Your task to perform on an android device: change timer sound Image 0: 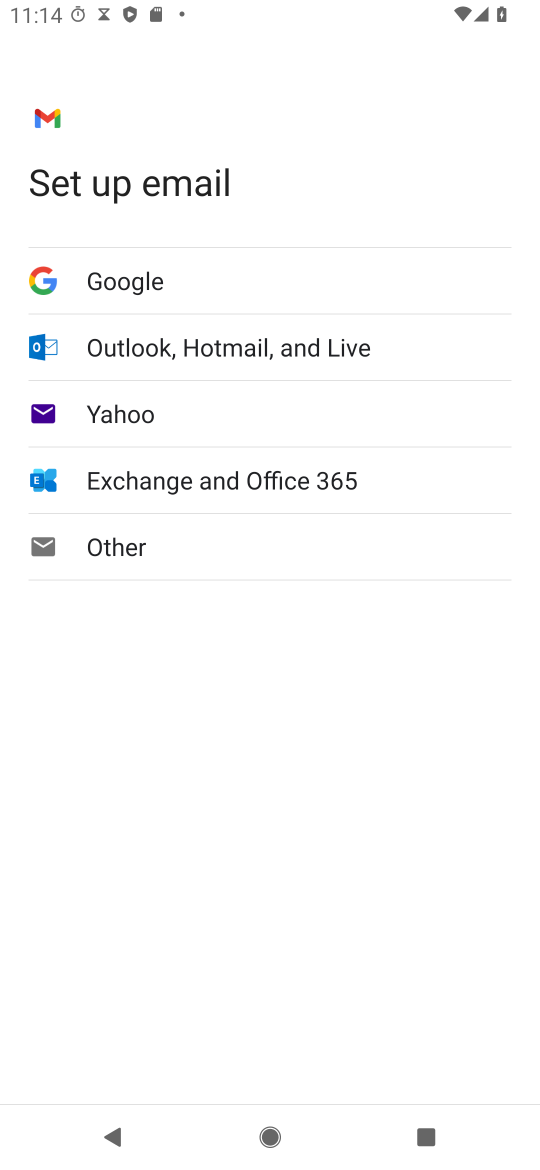
Step 0: press home button
Your task to perform on an android device: change timer sound Image 1: 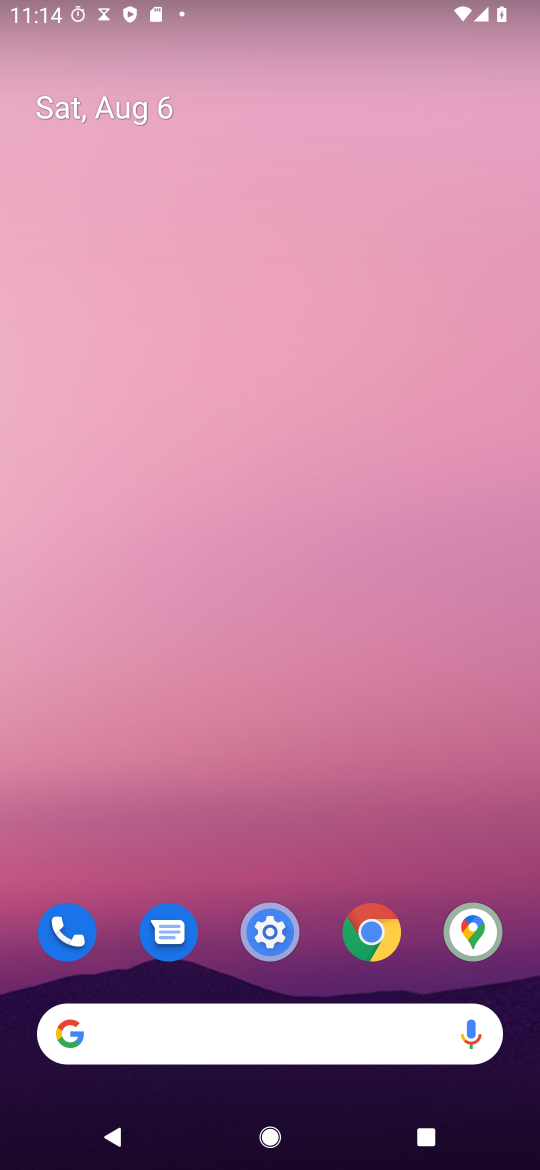
Step 1: drag from (221, 1032) to (241, 307)
Your task to perform on an android device: change timer sound Image 2: 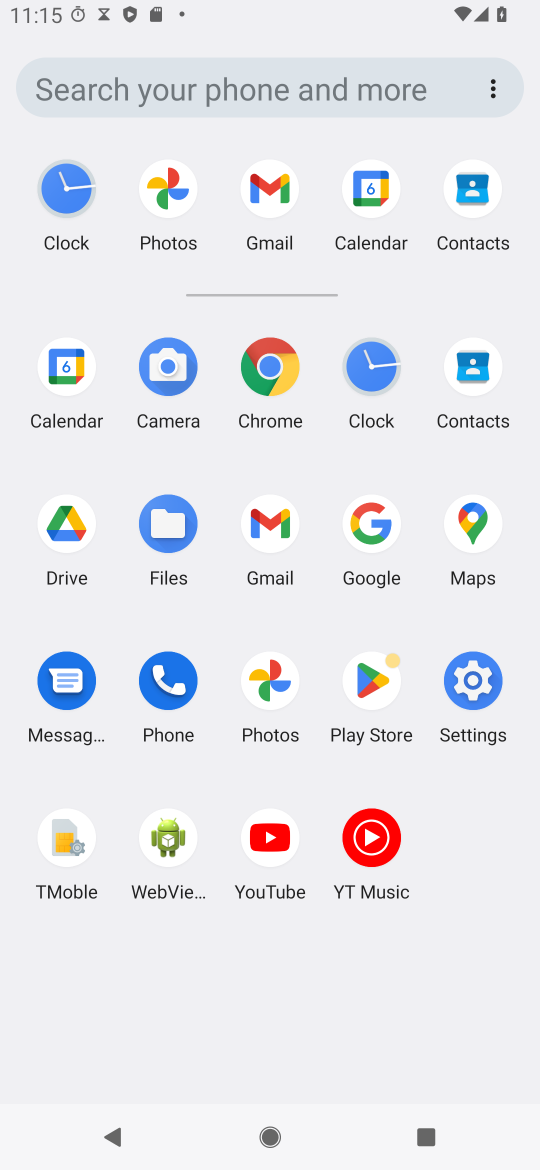
Step 2: click (370, 365)
Your task to perform on an android device: change timer sound Image 3: 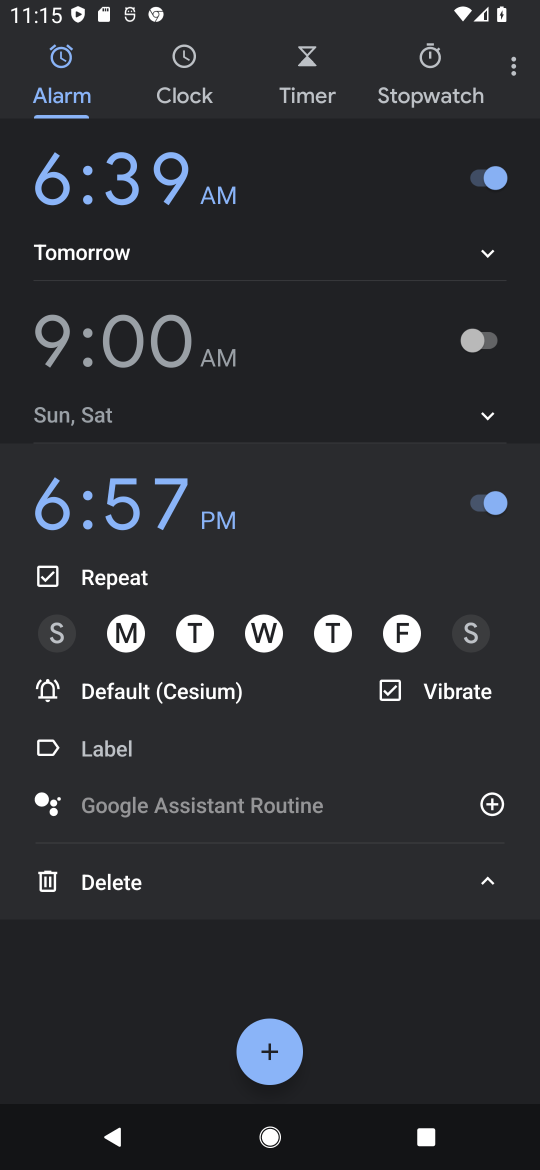
Step 3: click (510, 69)
Your task to perform on an android device: change timer sound Image 4: 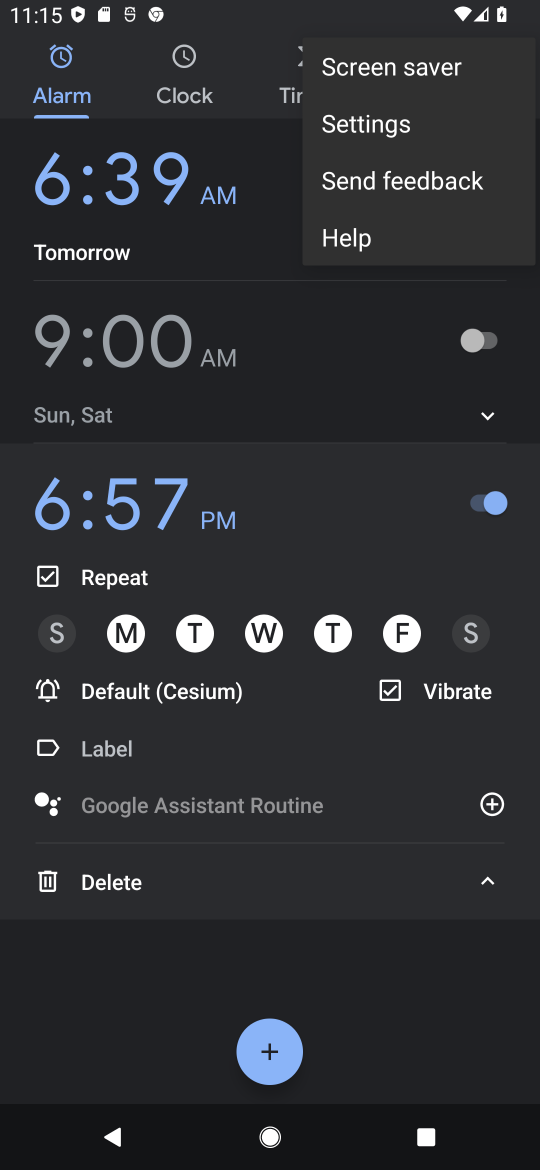
Step 4: click (384, 131)
Your task to perform on an android device: change timer sound Image 5: 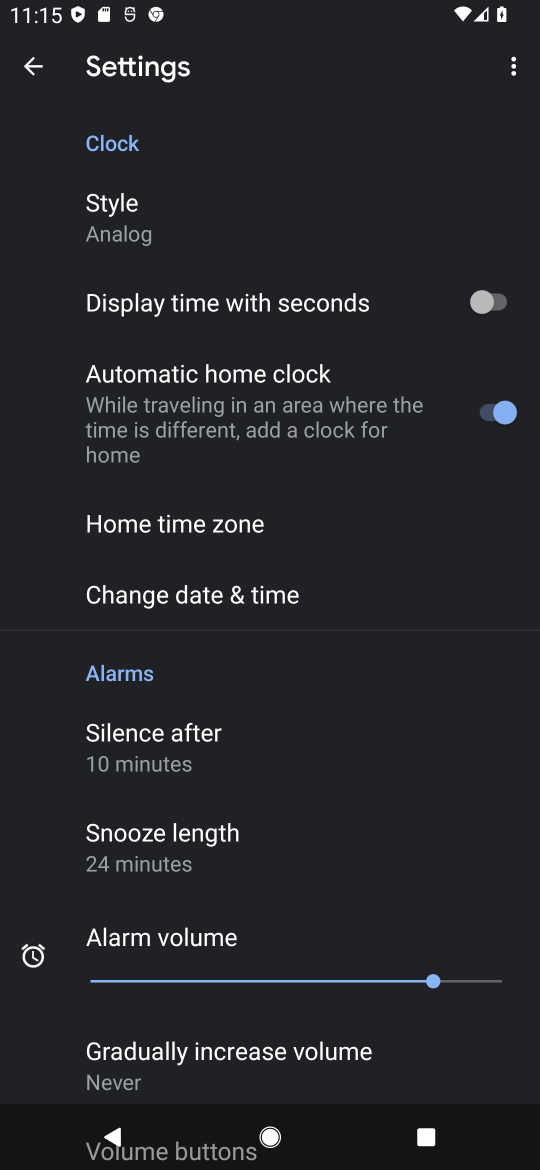
Step 5: drag from (296, 786) to (367, 616)
Your task to perform on an android device: change timer sound Image 6: 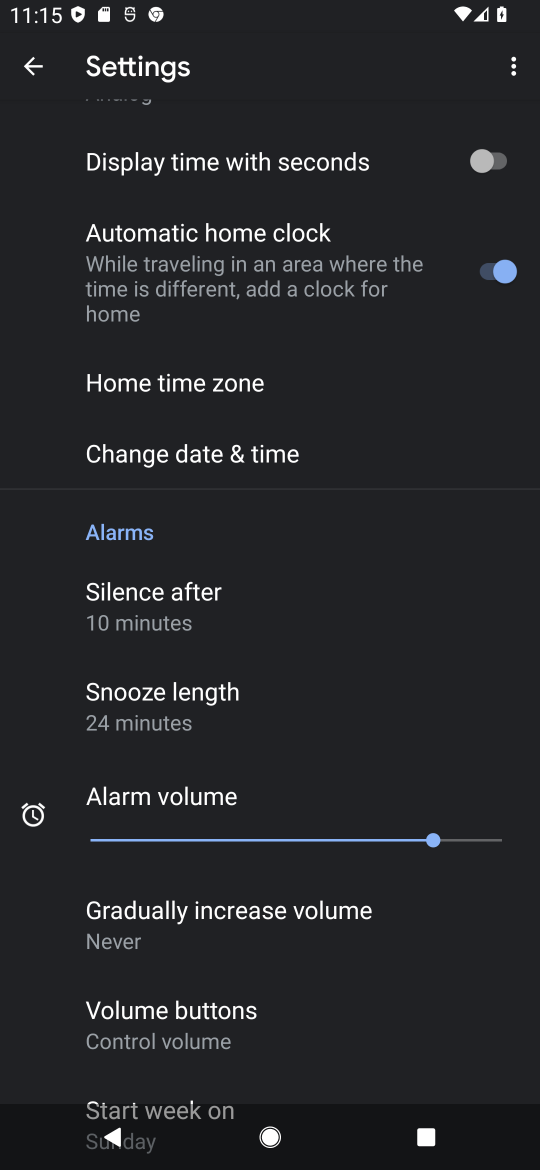
Step 6: drag from (267, 923) to (372, 710)
Your task to perform on an android device: change timer sound Image 7: 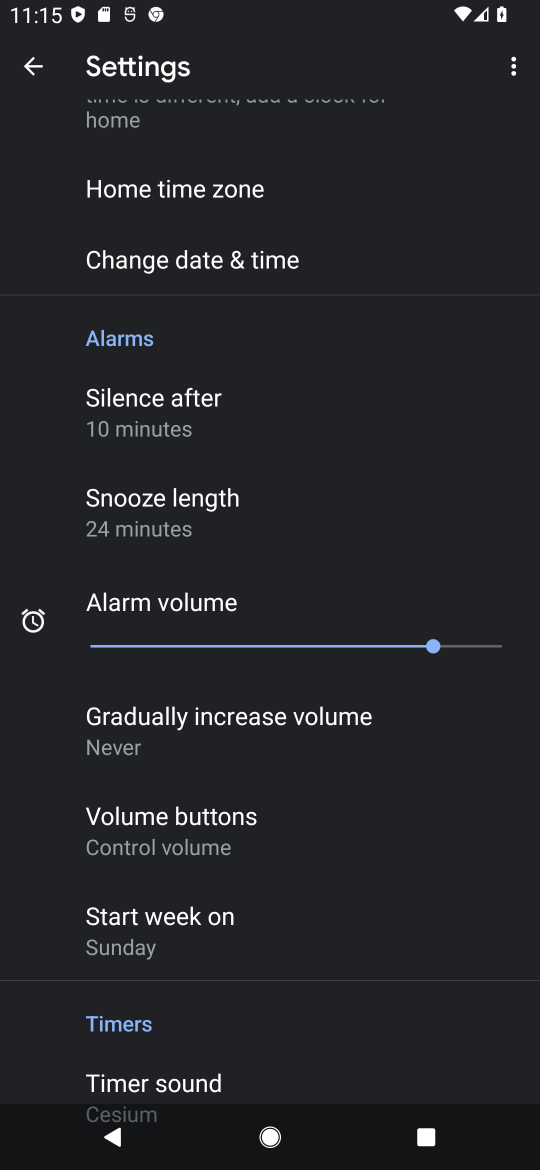
Step 7: drag from (273, 943) to (420, 679)
Your task to perform on an android device: change timer sound Image 8: 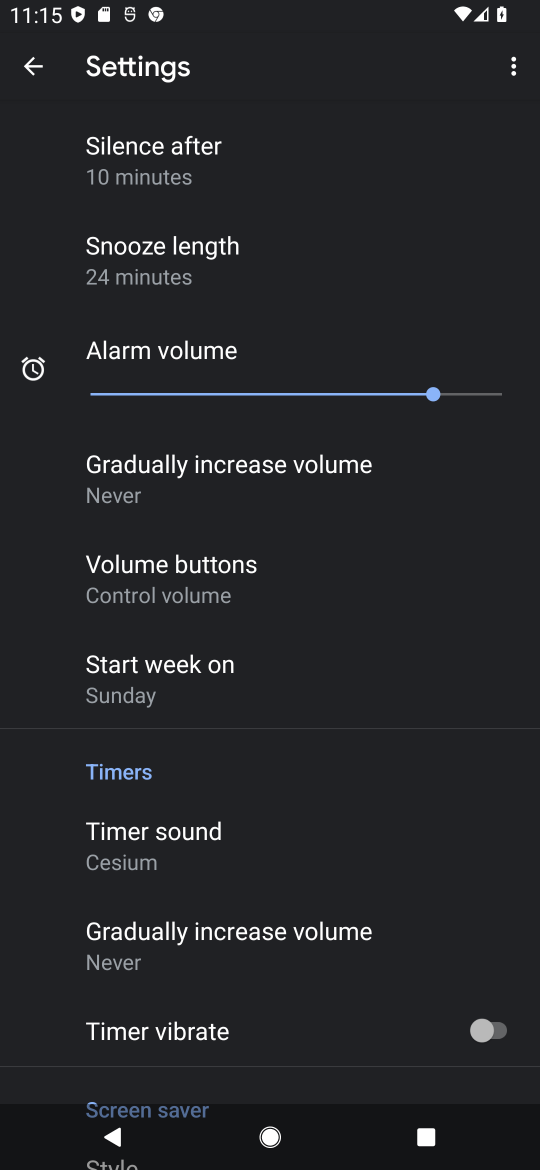
Step 8: click (189, 833)
Your task to perform on an android device: change timer sound Image 9: 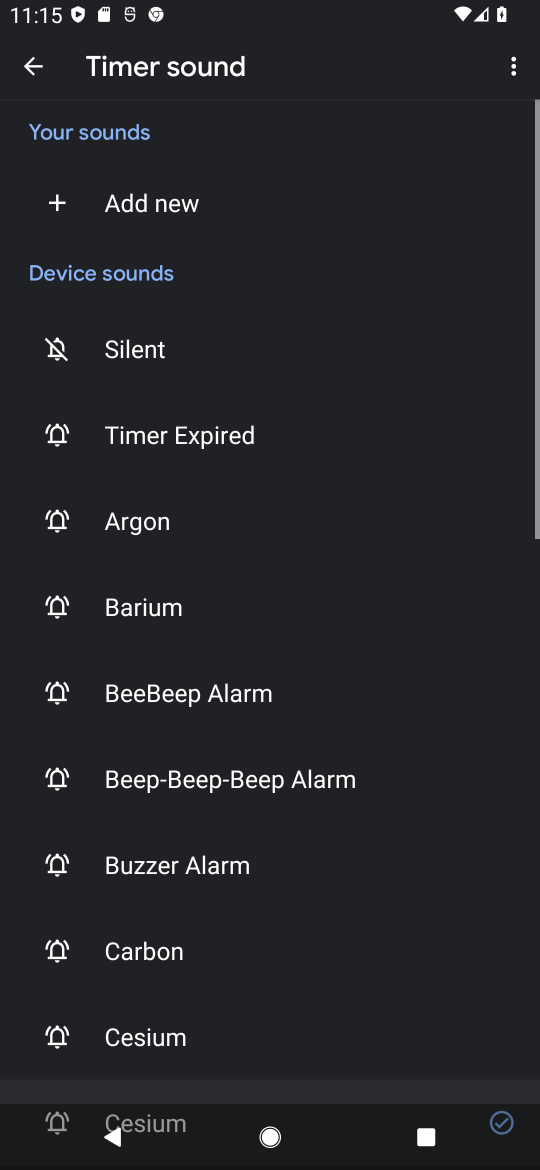
Step 9: drag from (191, 833) to (333, 358)
Your task to perform on an android device: change timer sound Image 10: 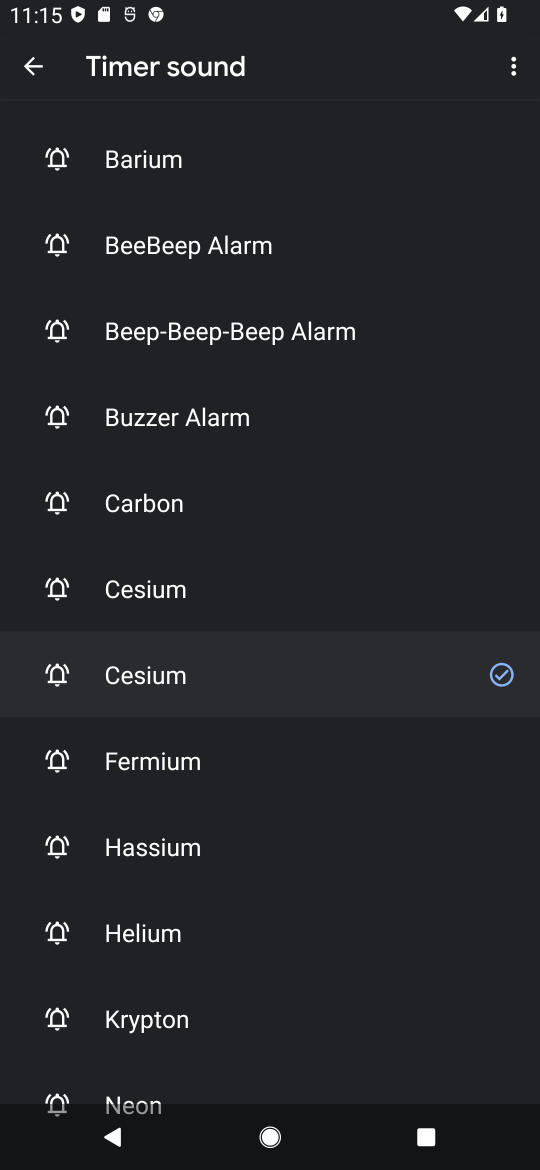
Step 10: drag from (301, 833) to (416, 376)
Your task to perform on an android device: change timer sound Image 11: 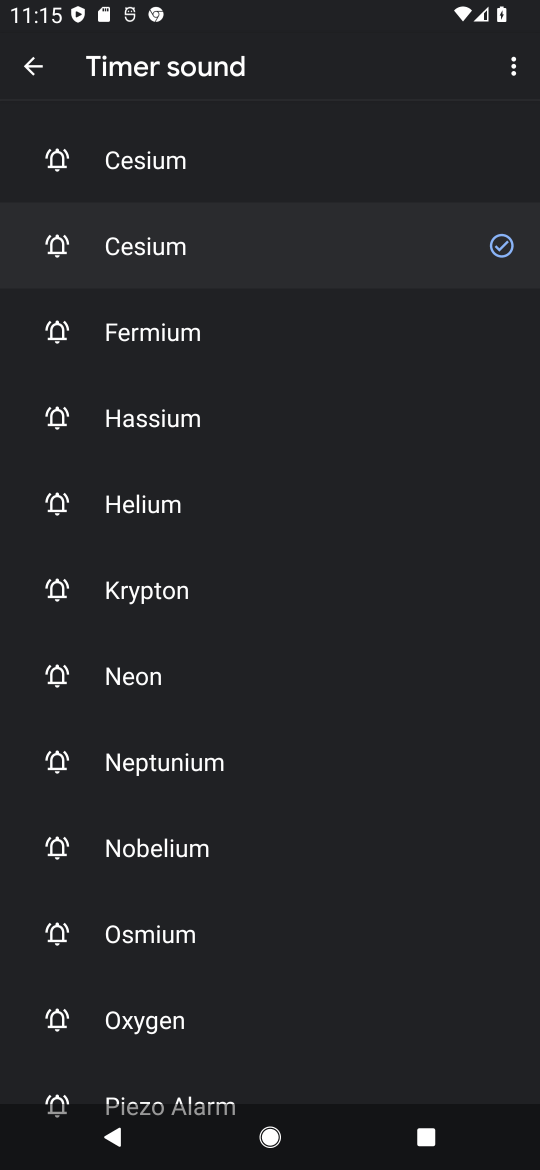
Step 11: drag from (277, 690) to (406, 429)
Your task to perform on an android device: change timer sound Image 12: 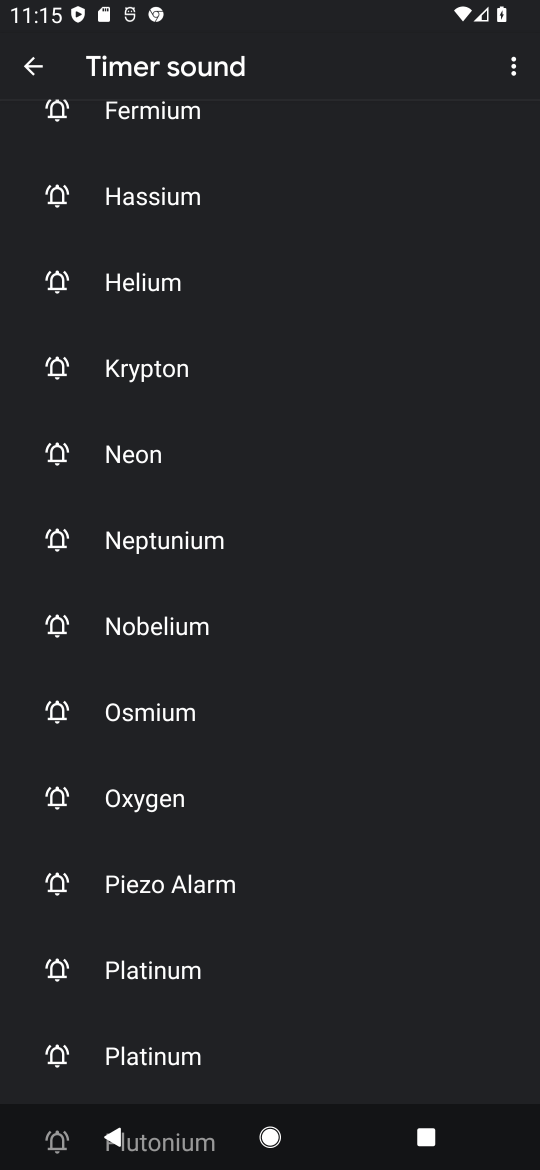
Step 12: click (171, 712)
Your task to perform on an android device: change timer sound Image 13: 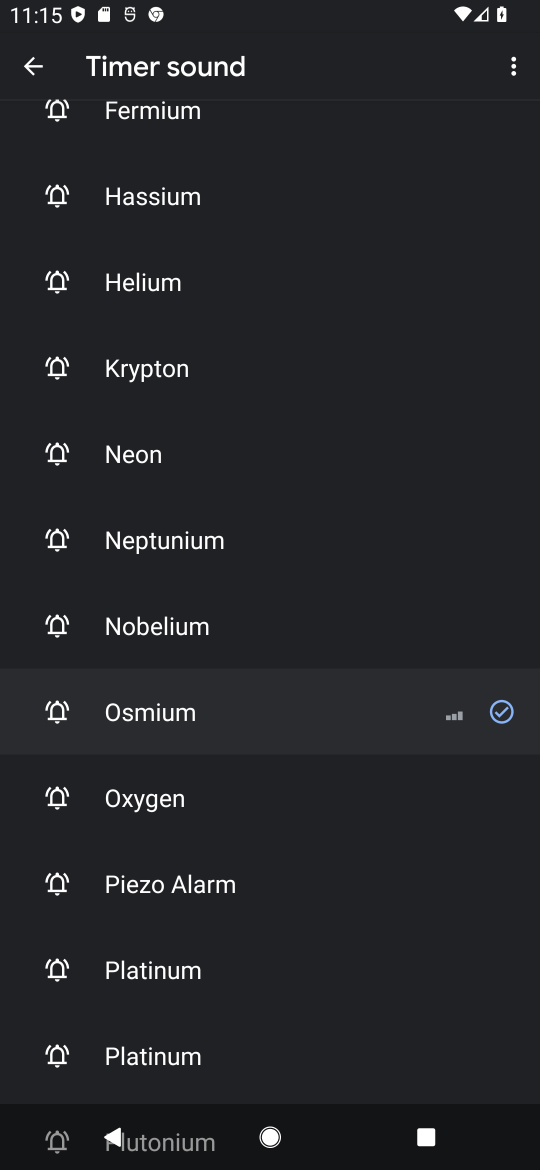
Step 13: task complete